Your task to perform on an android device: check android version Image 0: 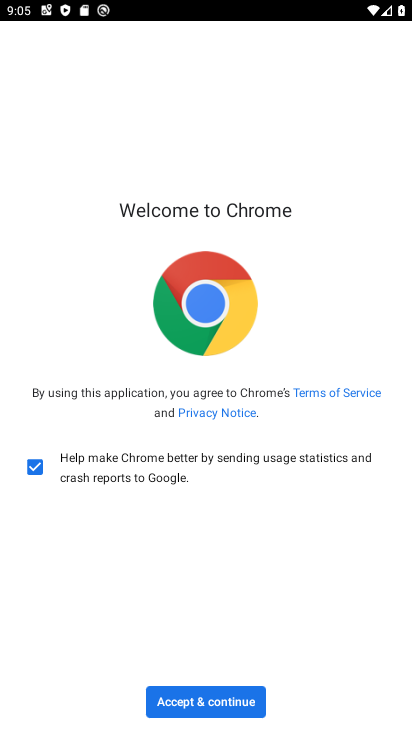
Step 0: press back button
Your task to perform on an android device: check android version Image 1: 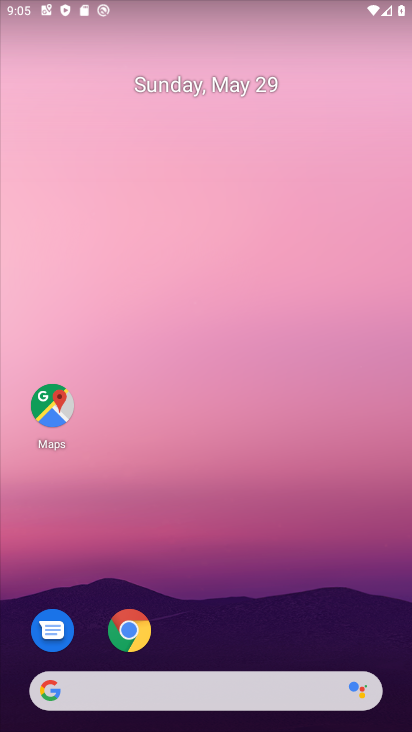
Step 1: drag from (299, 617) to (320, 160)
Your task to perform on an android device: check android version Image 2: 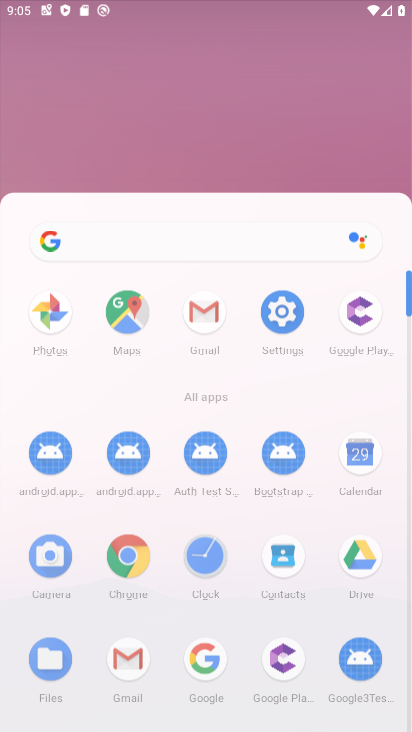
Step 2: click (322, 141)
Your task to perform on an android device: check android version Image 3: 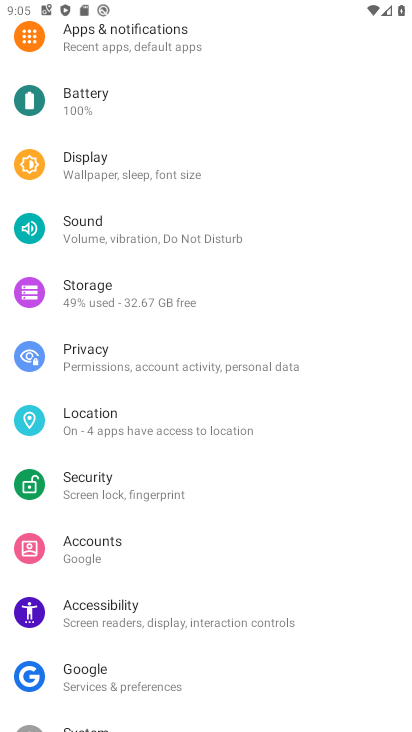
Step 3: drag from (258, 618) to (273, 98)
Your task to perform on an android device: check android version Image 4: 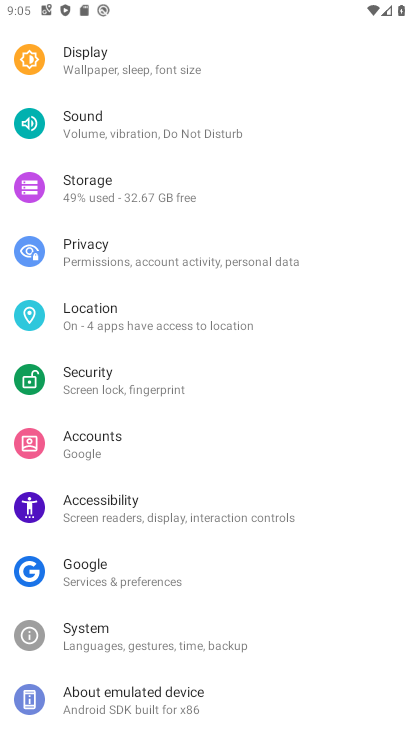
Step 4: drag from (268, 562) to (279, 304)
Your task to perform on an android device: check android version Image 5: 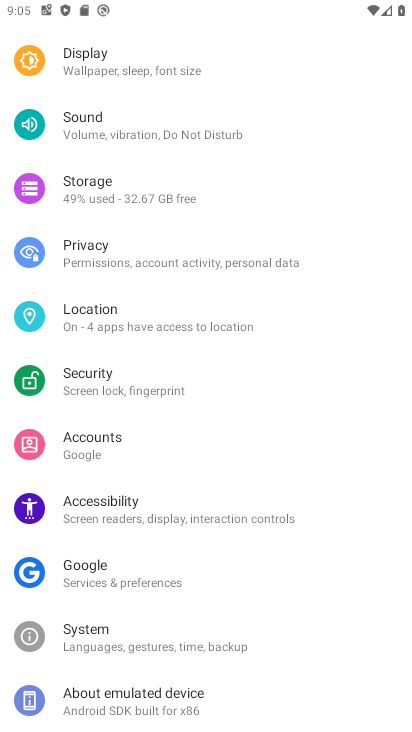
Step 5: click (183, 699)
Your task to perform on an android device: check android version Image 6: 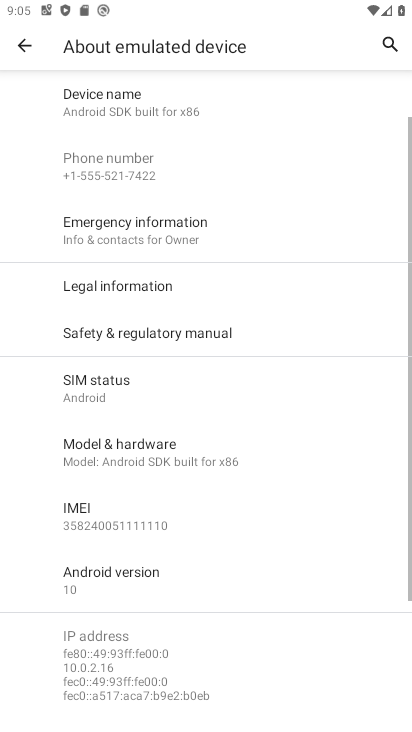
Step 6: drag from (184, 700) to (193, 595)
Your task to perform on an android device: check android version Image 7: 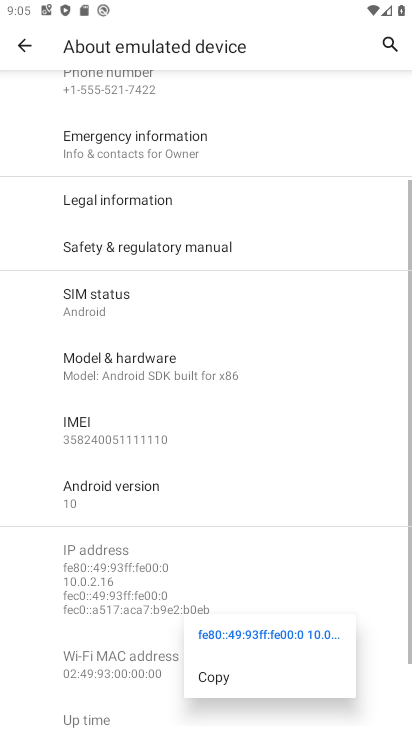
Step 7: click (185, 504)
Your task to perform on an android device: check android version Image 8: 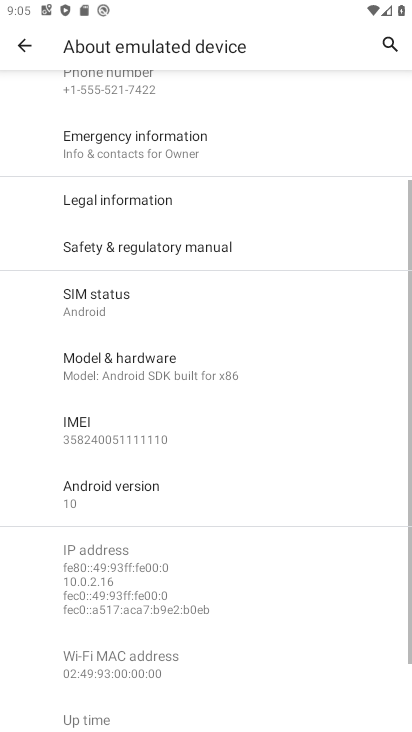
Step 8: click (184, 491)
Your task to perform on an android device: check android version Image 9: 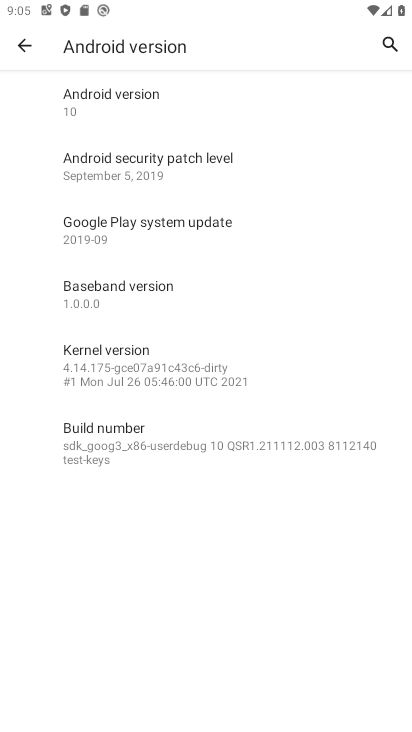
Step 9: task complete